Your task to perform on an android device: Go to notification settings Image 0: 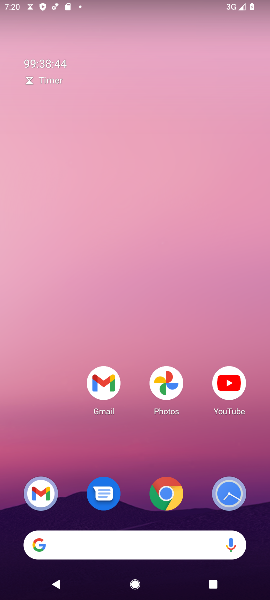
Step 0: drag from (118, 503) to (119, 79)
Your task to perform on an android device: Go to notification settings Image 1: 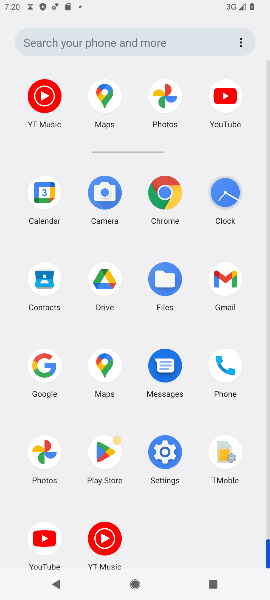
Step 1: click (158, 444)
Your task to perform on an android device: Go to notification settings Image 2: 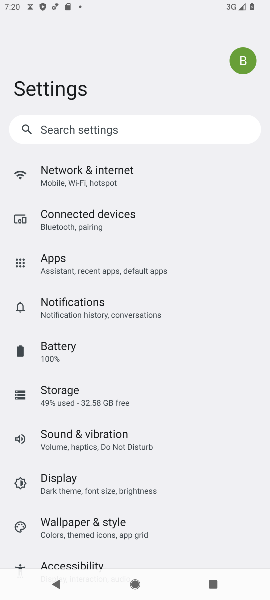
Step 2: click (64, 299)
Your task to perform on an android device: Go to notification settings Image 3: 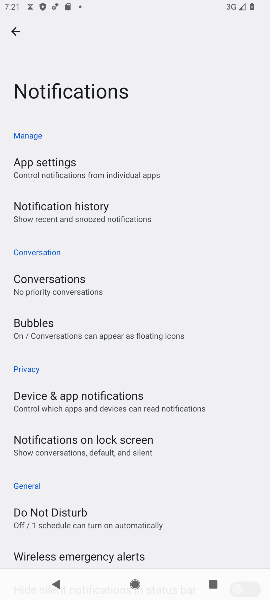
Step 3: task complete